Your task to perform on an android device: turn on notifications settings in the gmail app Image 0: 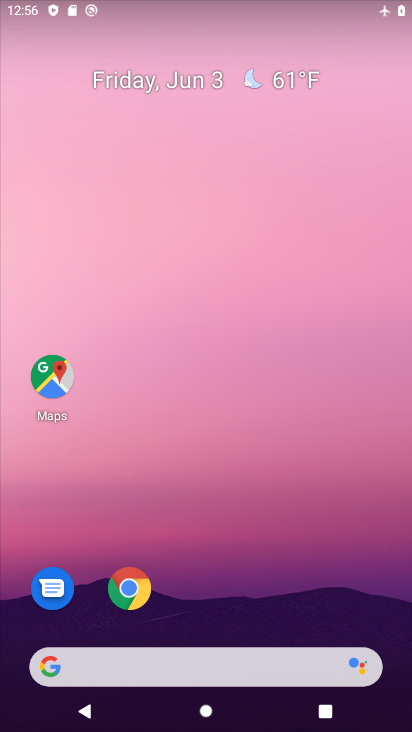
Step 0: drag from (59, 619) to (303, 77)
Your task to perform on an android device: turn on notifications settings in the gmail app Image 1: 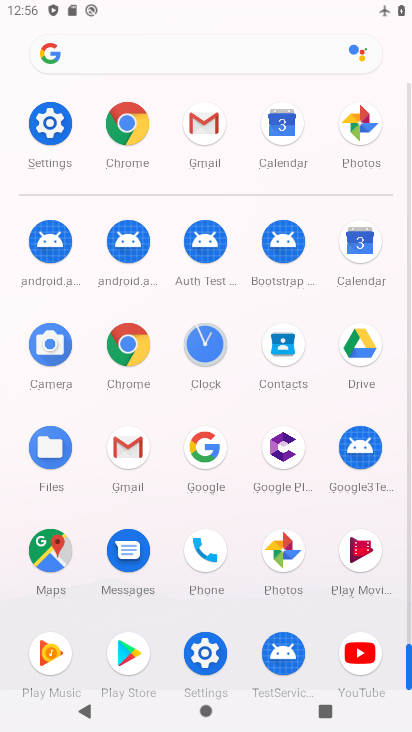
Step 1: click (125, 452)
Your task to perform on an android device: turn on notifications settings in the gmail app Image 2: 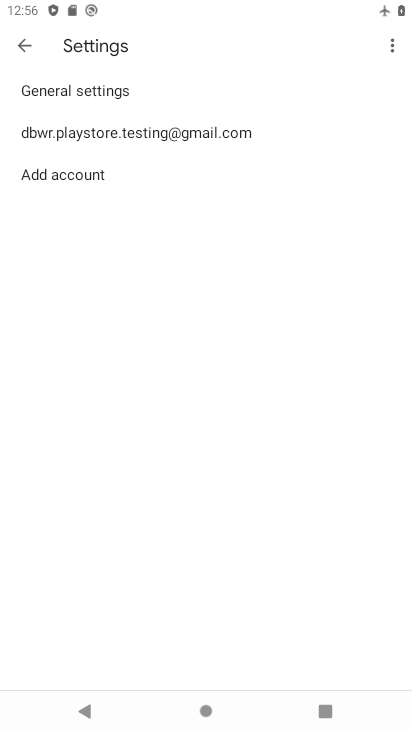
Step 2: click (99, 126)
Your task to perform on an android device: turn on notifications settings in the gmail app Image 3: 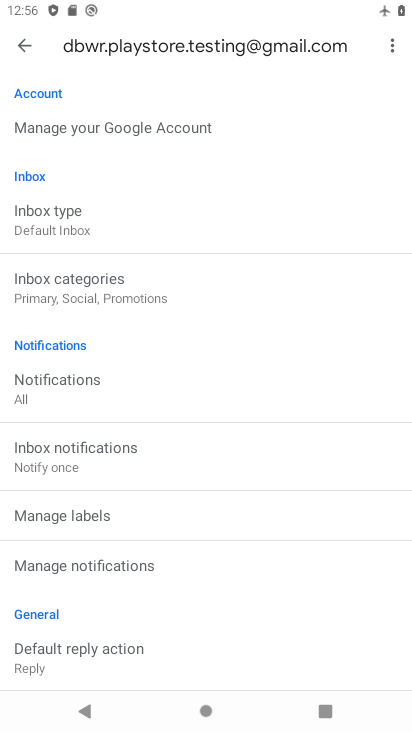
Step 3: click (72, 577)
Your task to perform on an android device: turn on notifications settings in the gmail app Image 4: 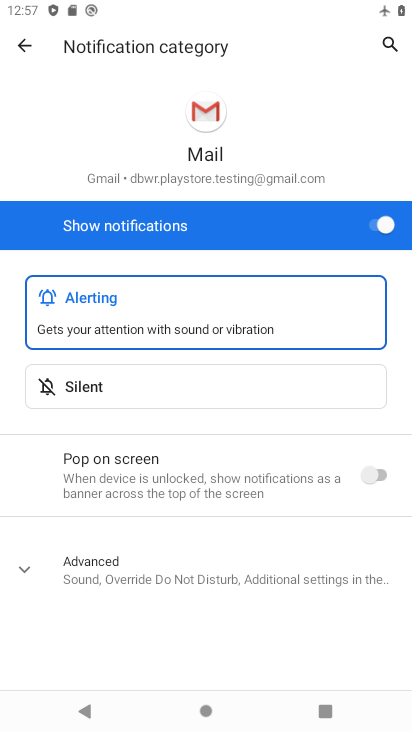
Step 4: click (396, 218)
Your task to perform on an android device: turn on notifications settings in the gmail app Image 5: 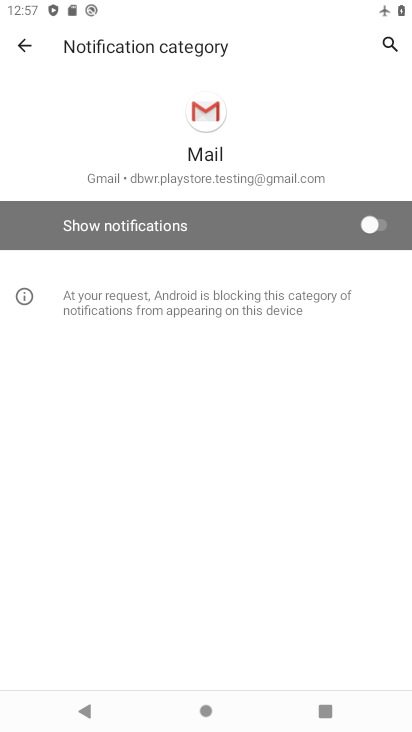
Step 5: task complete